Your task to perform on an android device: visit the assistant section in the google photos Image 0: 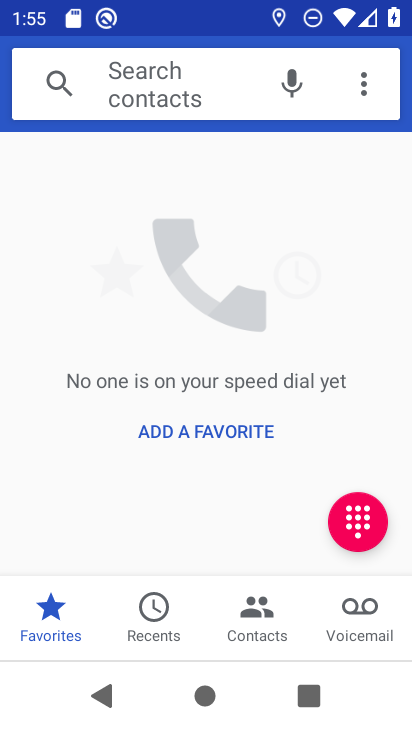
Step 0: press home button
Your task to perform on an android device: visit the assistant section in the google photos Image 1: 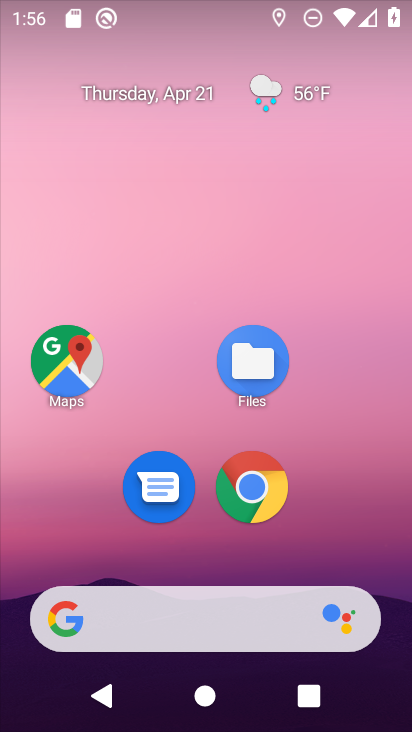
Step 1: drag from (380, 548) to (381, 163)
Your task to perform on an android device: visit the assistant section in the google photos Image 2: 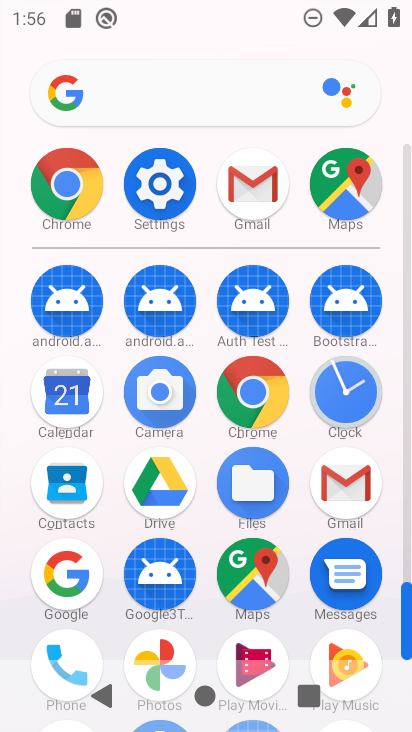
Step 2: click (168, 654)
Your task to perform on an android device: visit the assistant section in the google photos Image 3: 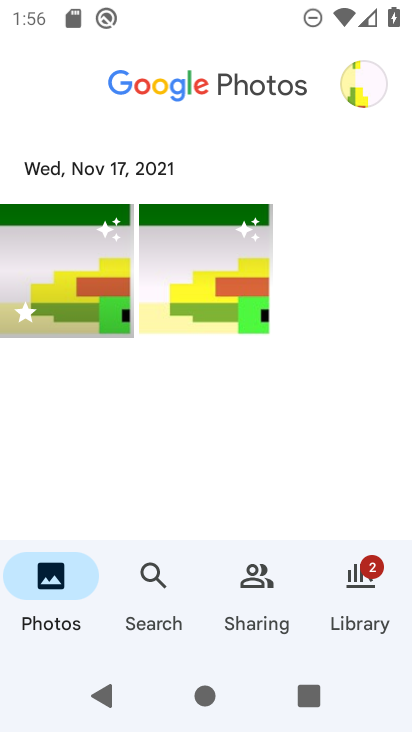
Step 3: click (357, 582)
Your task to perform on an android device: visit the assistant section in the google photos Image 4: 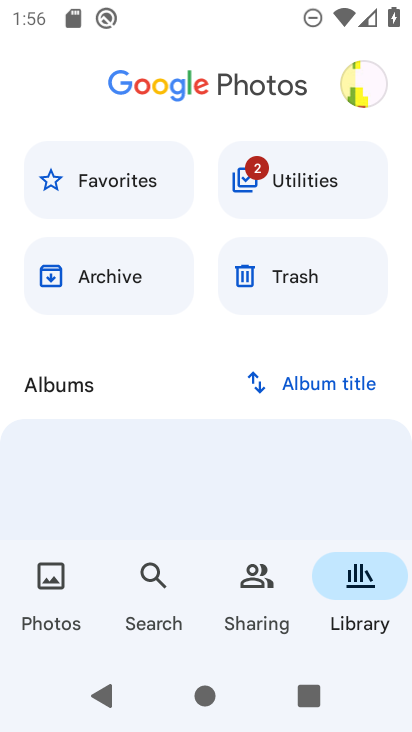
Step 4: click (155, 571)
Your task to perform on an android device: visit the assistant section in the google photos Image 5: 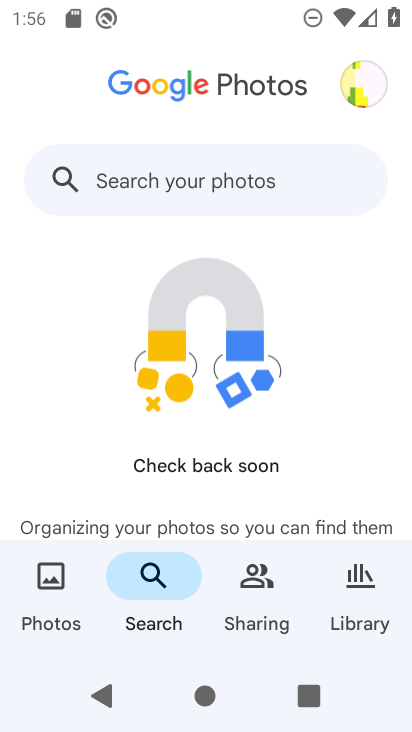
Step 5: click (138, 190)
Your task to perform on an android device: visit the assistant section in the google photos Image 6: 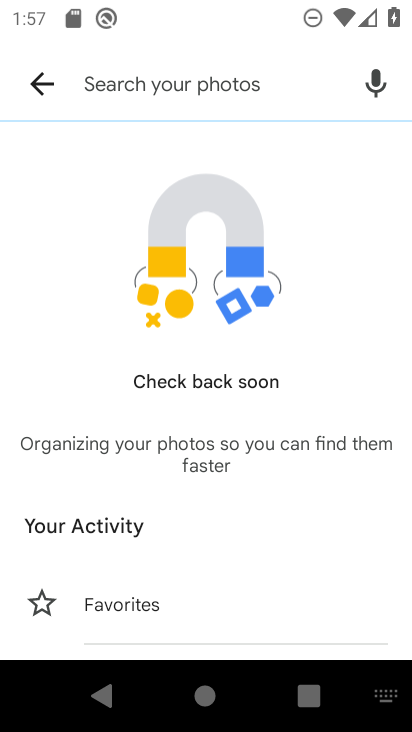
Step 6: task complete